Your task to perform on an android device: see tabs open on other devices in the chrome app Image 0: 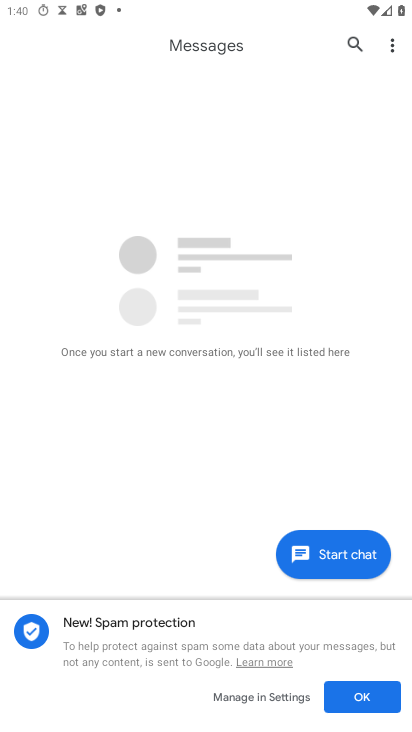
Step 0: press home button
Your task to perform on an android device: see tabs open on other devices in the chrome app Image 1: 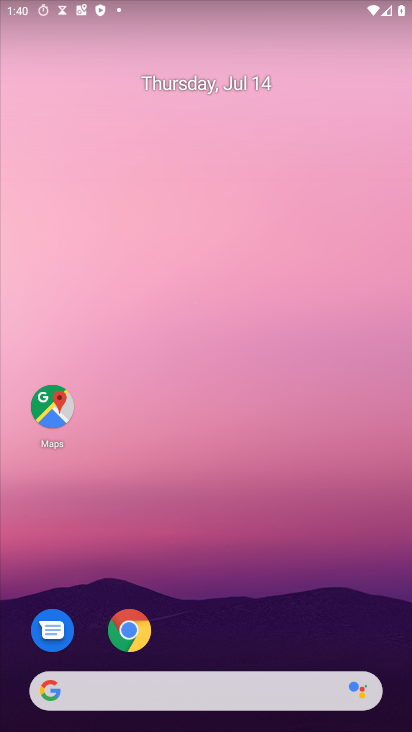
Step 1: click (142, 633)
Your task to perform on an android device: see tabs open on other devices in the chrome app Image 2: 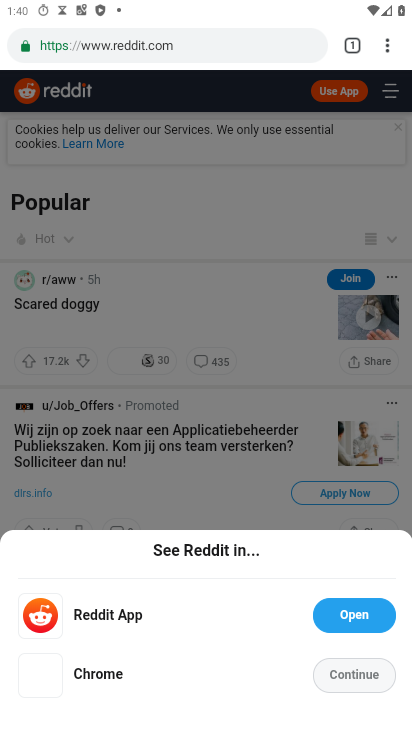
Step 2: click (383, 47)
Your task to perform on an android device: see tabs open on other devices in the chrome app Image 3: 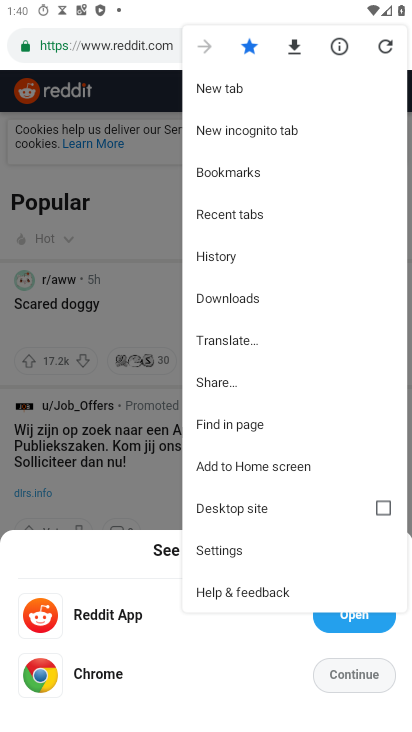
Step 3: click (255, 220)
Your task to perform on an android device: see tabs open on other devices in the chrome app Image 4: 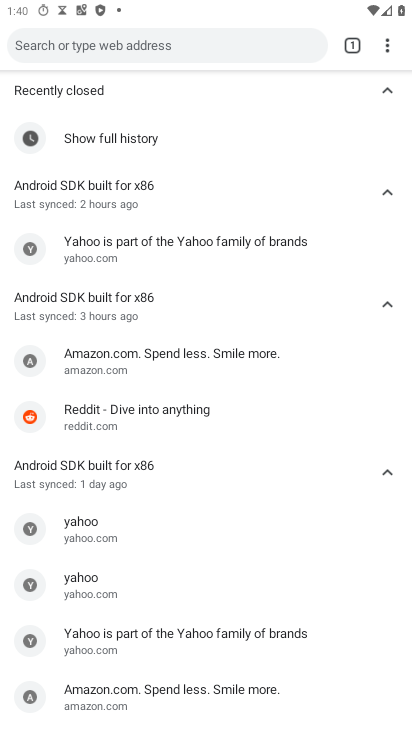
Step 4: task complete